Your task to perform on an android device: turn on javascript in the chrome app Image 0: 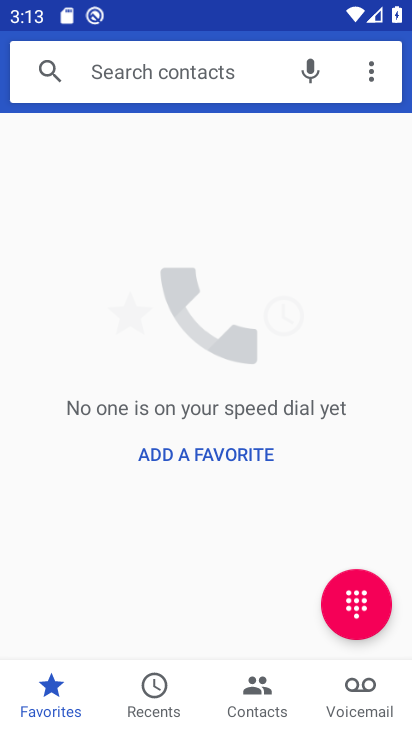
Step 0: press home button
Your task to perform on an android device: turn on javascript in the chrome app Image 1: 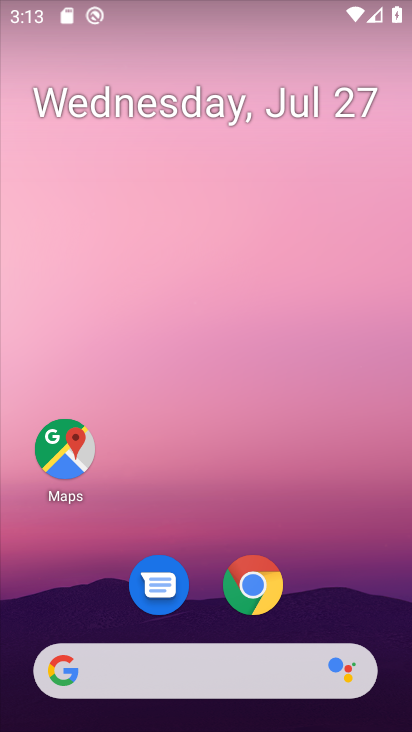
Step 1: click (263, 579)
Your task to perform on an android device: turn on javascript in the chrome app Image 2: 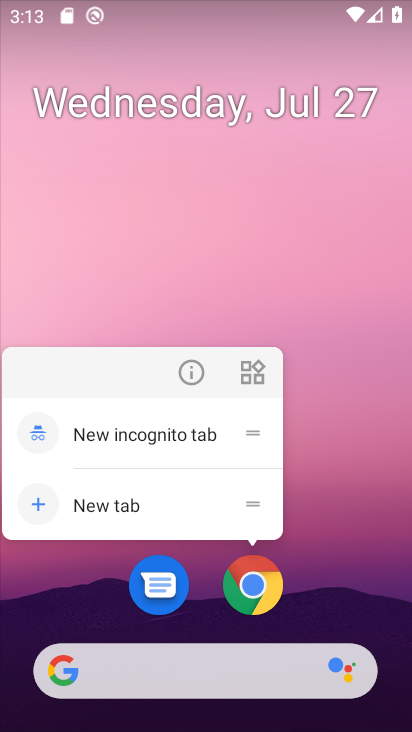
Step 2: click (263, 579)
Your task to perform on an android device: turn on javascript in the chrome app Image 3: 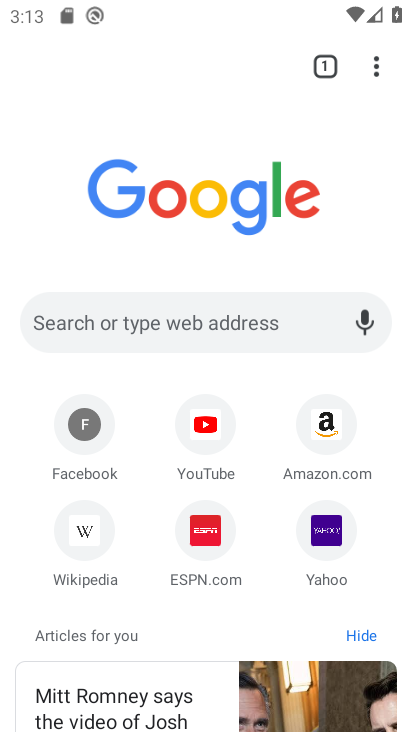
Step 3: click (377, 72)
Your task to perform on an android device: turn on javascript in the chrome app Image 4: 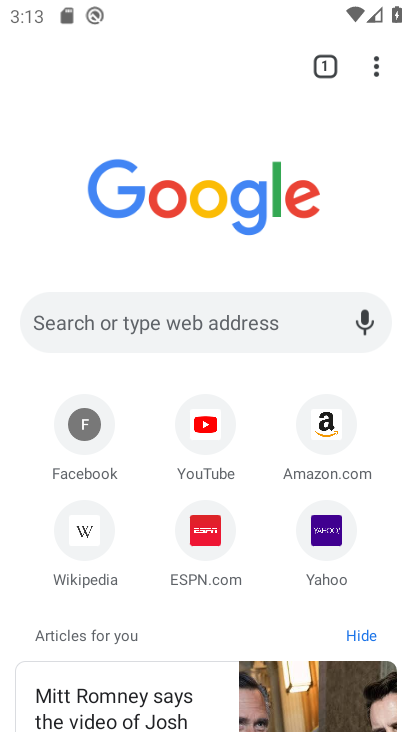
Step 4: click (377, 72)
Your task to perform on an android device: turn on javascript in the chrome app Image 5: 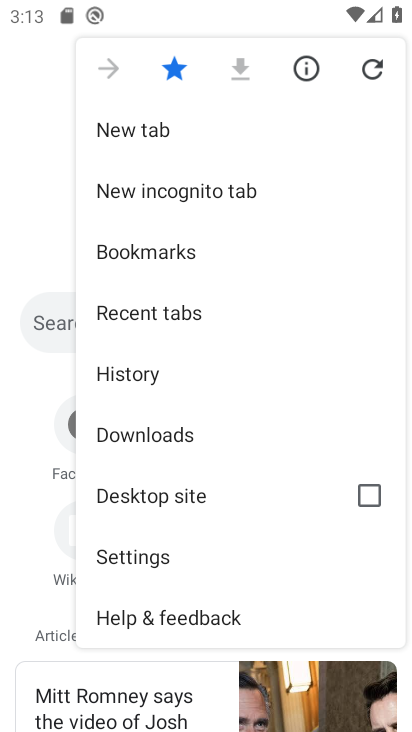
Step 5: click (156, 554)
Your task to perform on an android device: turn on javascript in the chrome app Image 6: 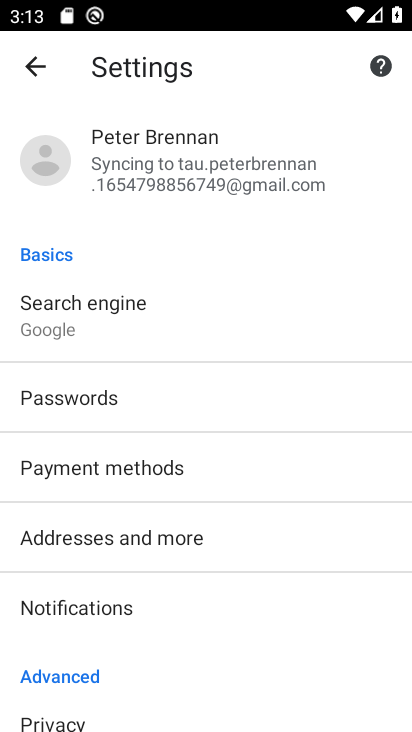
Step 6: drag from (223, 625) to (216, 324)
Your task to perform on an android device: turn on javascript in the chrome app Image 7: 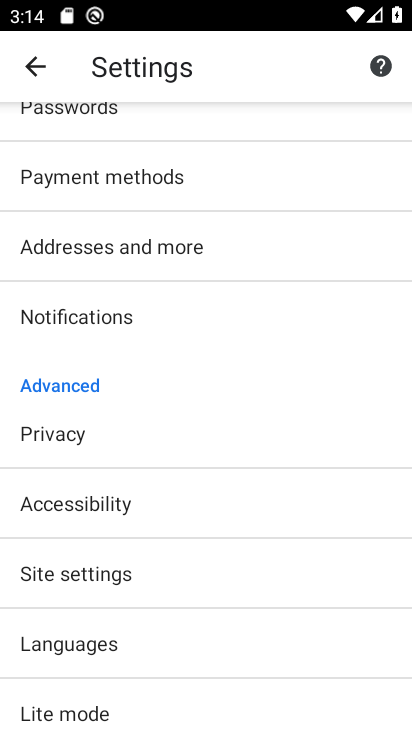
Step 7: click (112, 567)
Your task to perform on an android device: turn on javascript in the chrome app Image 8: 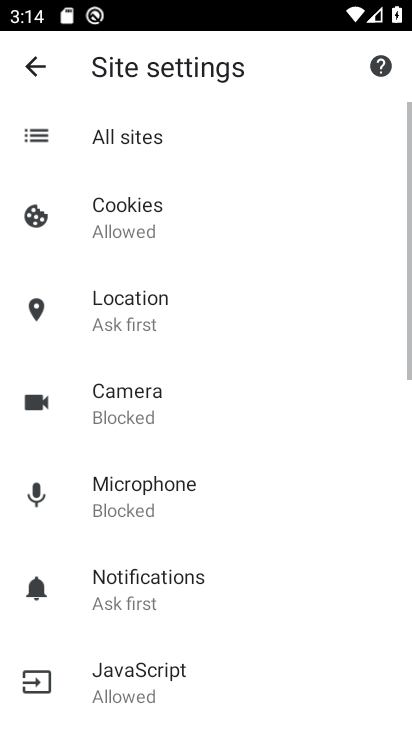
Step 8: drag from (244, 648) to (252, 482)
Your task to perform on an android device: turn on javascript in the chrome app Image 9: 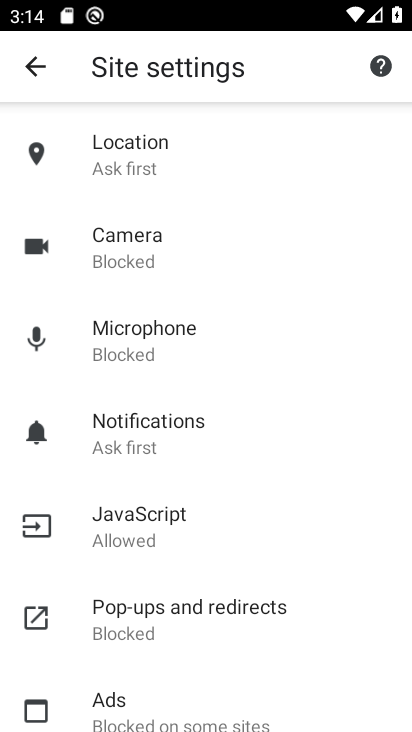
Step 9: click (167, 523)
Your task to perform on an android device: turn on javascript in the chrome app Image 10: 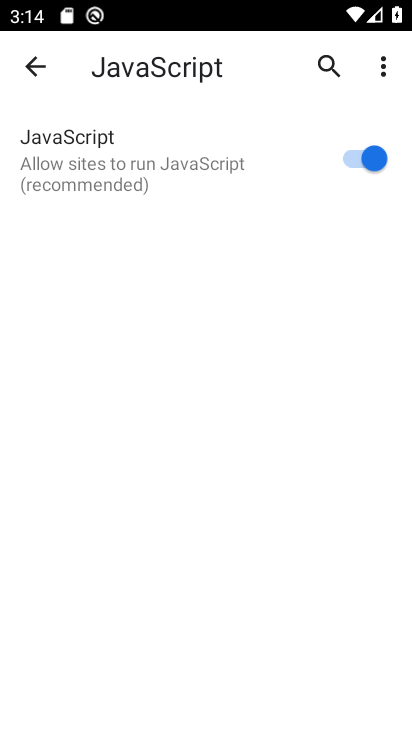
Step 10: task complete